Your task to perform on an android device: Turn on the flashlight Image 0: 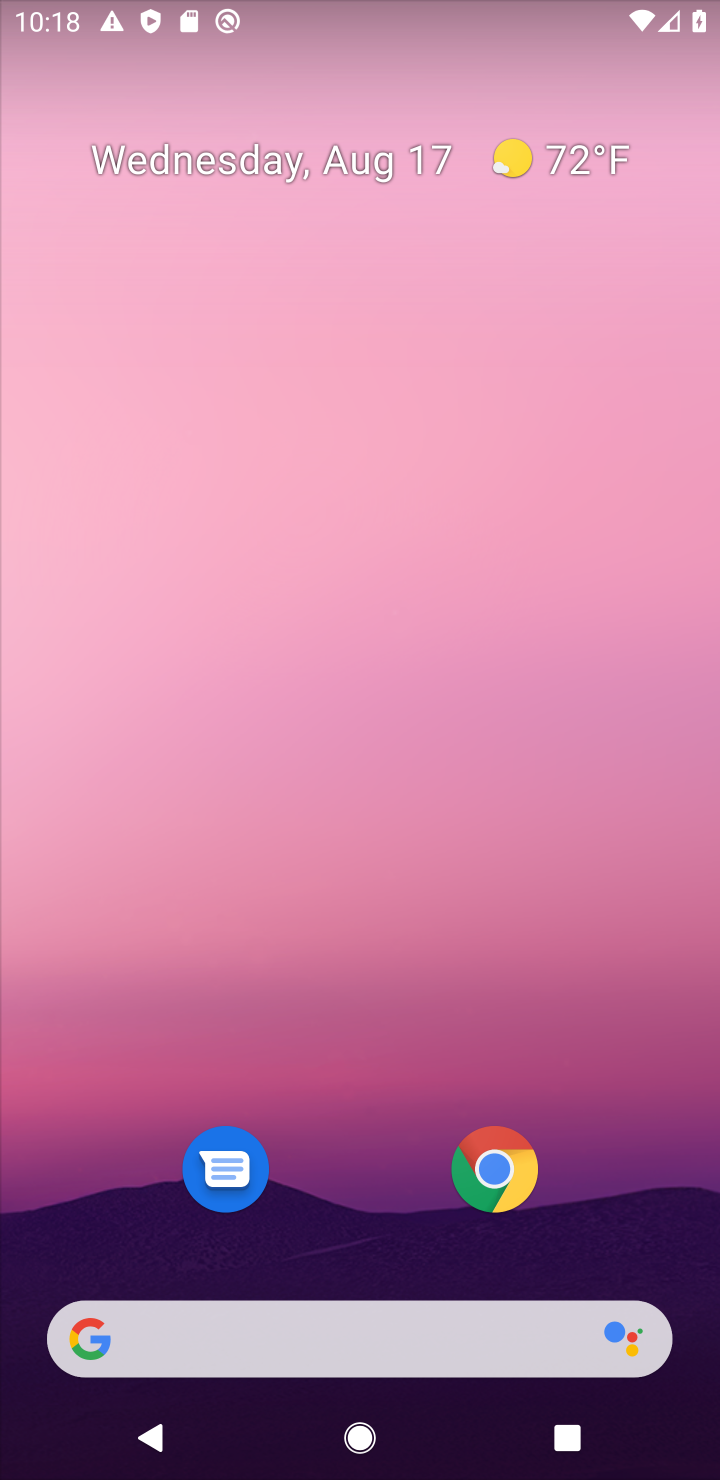
Step 0: drag from (421, 1076) to (428, 350)
Your task to perform on an android device: Turn on the flashlight Image 1: 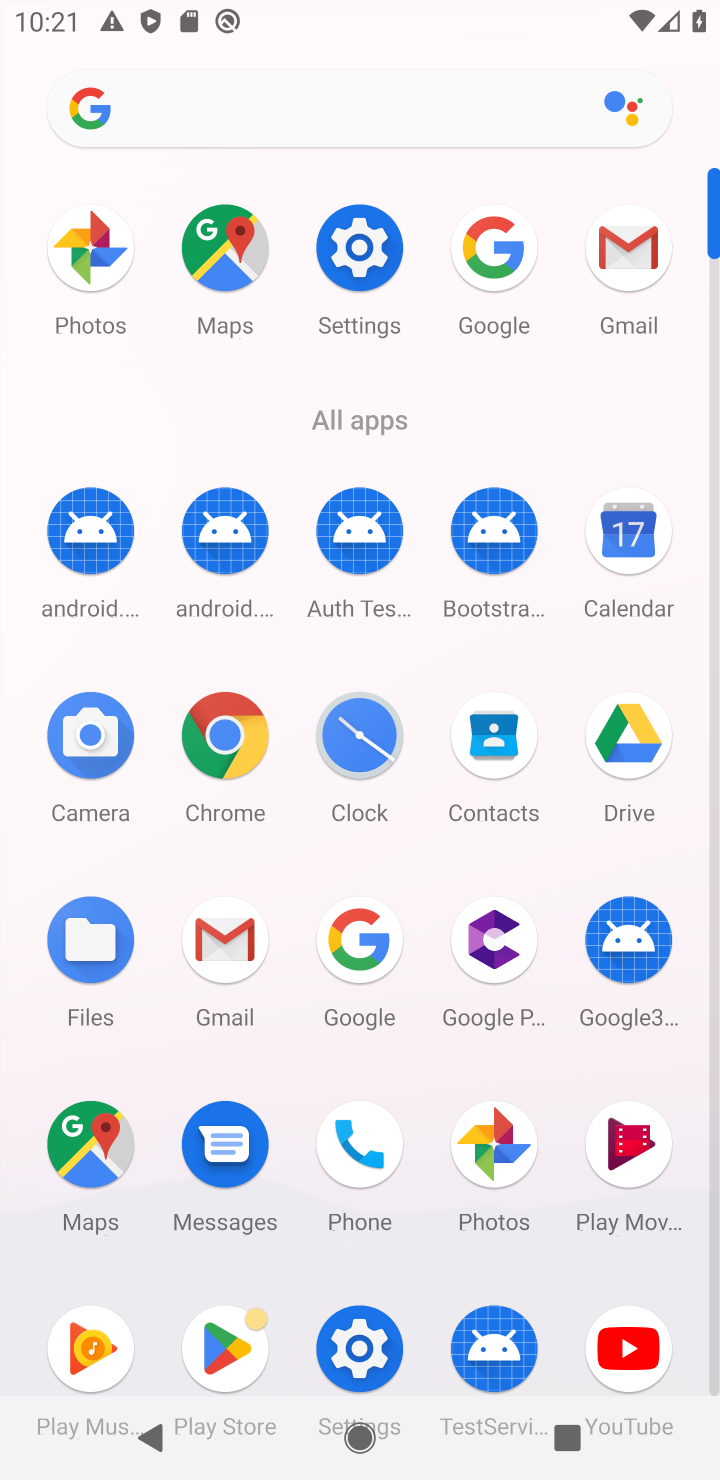
Step 1: task complete